Your task to perform on an android device: Open calendar and show me the fourth week of next month Image 0: 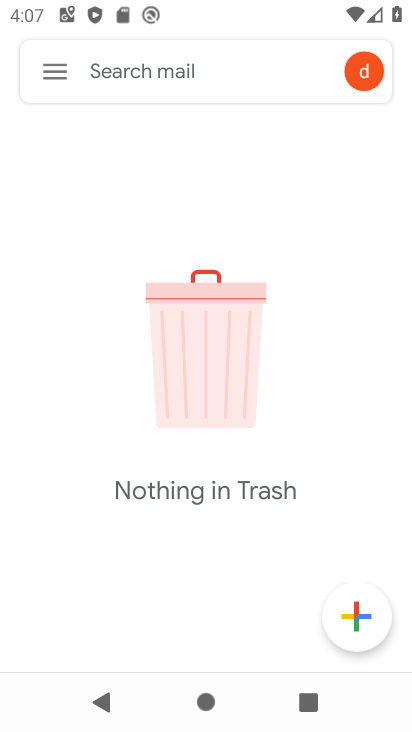
Step 0: press home button
Your task to perform on an android device: Open calendar and show me the fourth week of next month Image 1: 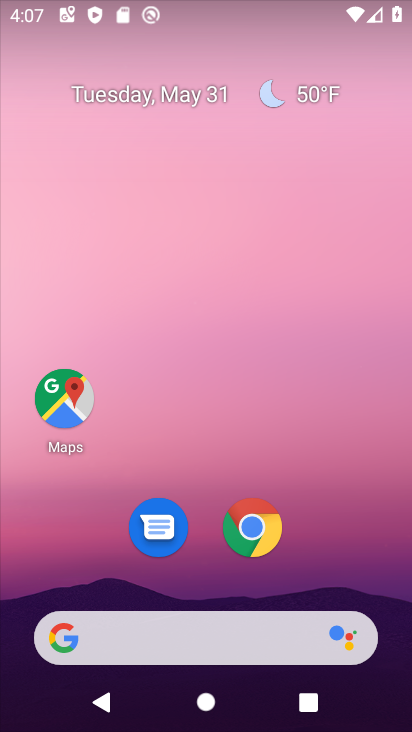
Step 1: drag from (349, 597) to (290, 105)
Your task to perform on an android device: Open calendar and show me the fourth week of next month Image 2: 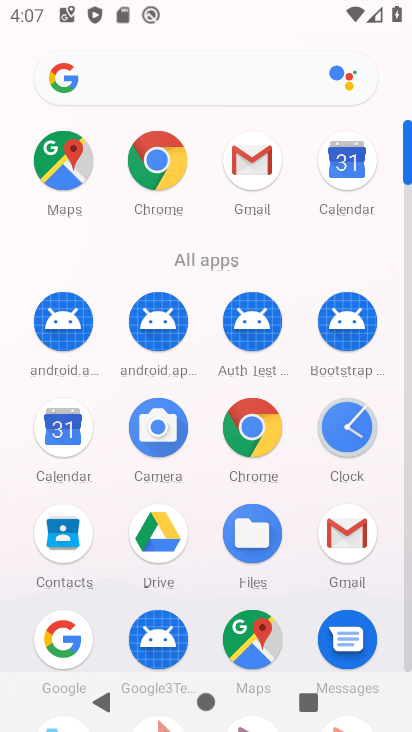
Step 2: click (350, 160)
Your task to perform on an android device: Open calendar and show me the fourth week of next month Image 3: 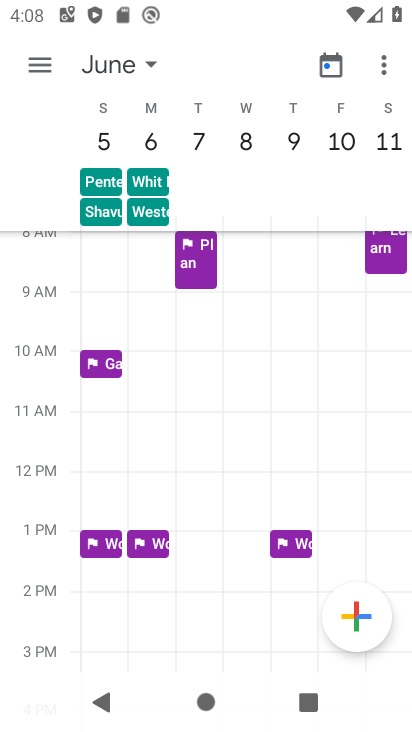
Step 3: click (148, 67)
Your task to perform on an android device: Open calendar and show me the fourth week of next month Image 4: 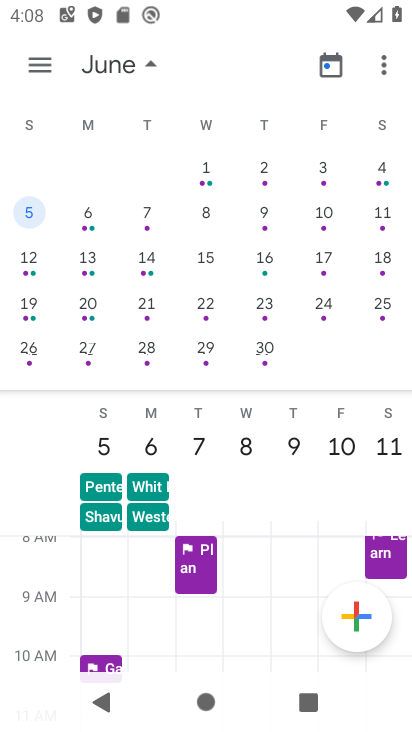
Step 4: click (147, 299)
Your task to perform on an android device: Open calendar and show me the fourth week of next month Image 5: 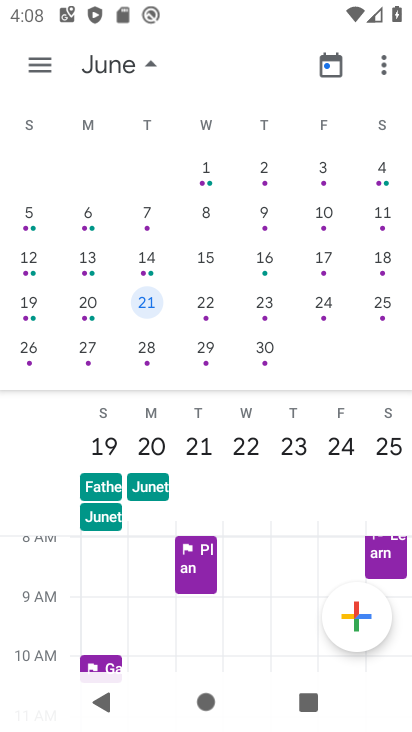
Step 5: click (150, 70)
Your task to perform on an android device: Open calendar and show me the fourth week of next month Image 6: 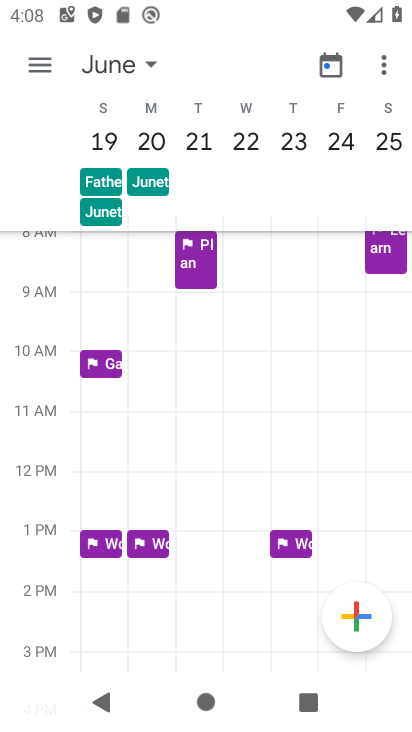
Step 6: task complete